Your task to perform on an android device: find which apps use the phone's location Image 0: 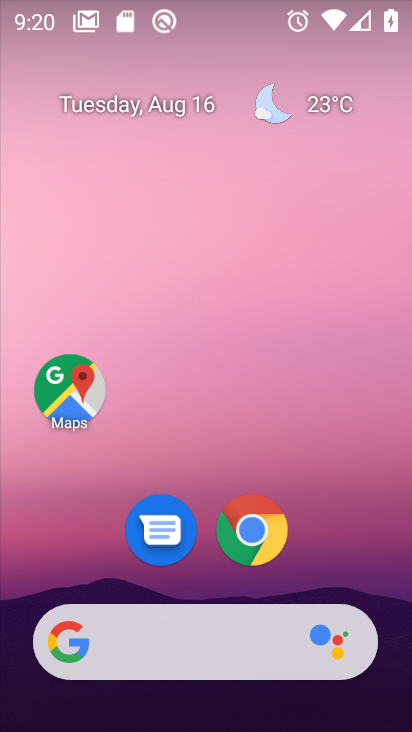
Step 0: drag from (318, 489) to (319, 58)
Your task to perform on an android device: find which apps use the phone's location Image 1: 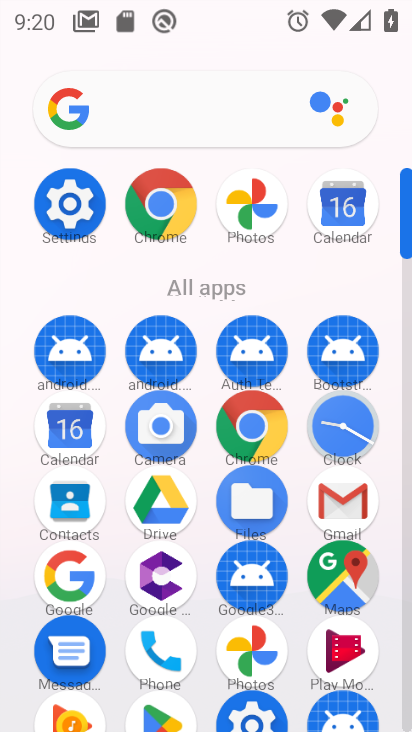
Step 1: click (244, 719)
Your task to perform on an android device: find which apps use the phone's location Image 2: 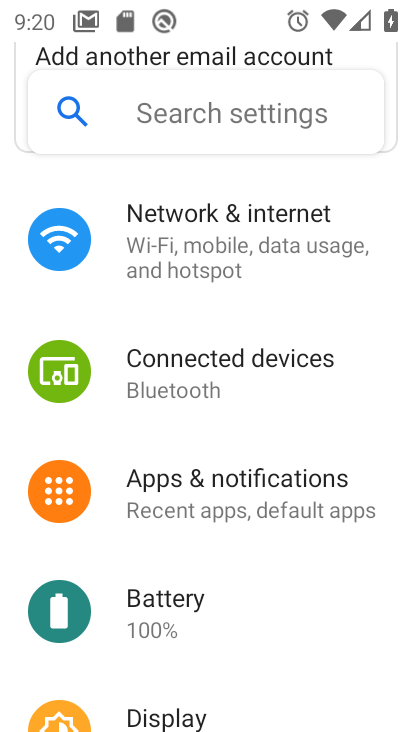
Step 2: drag from (247, 657) to (297, 180)
Your task to perform on an android device: find which apps use the phone's location Image 3: 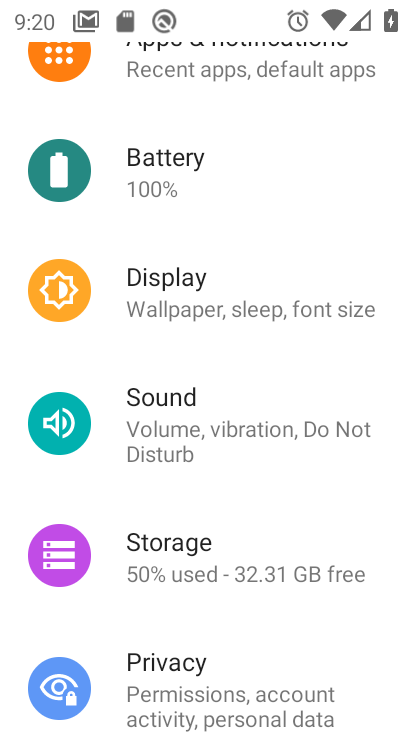
Step 3: drag from (303, 523) to (331, 73)
Your task to perform on an android device: find which apps use the phone's location Image 4: 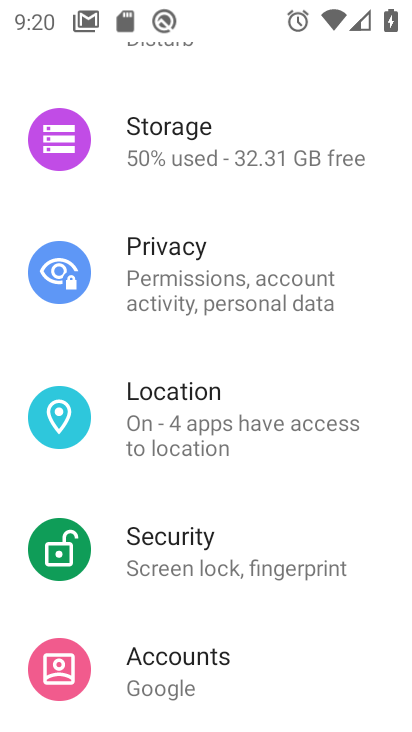
Step 4: click (182, 416)
Your task to perform on an android device: find which apps use the phone's location Image 5: 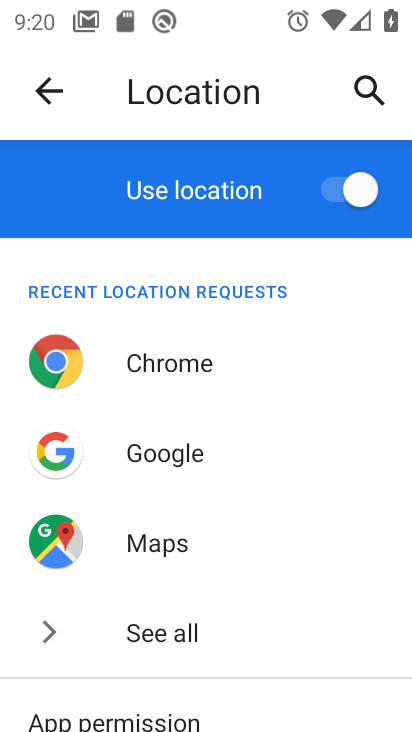
Step 5: drag from (307, 635) to (331, 295)
Your task to perform on an android device: find which apps use the phone's location Image 6: 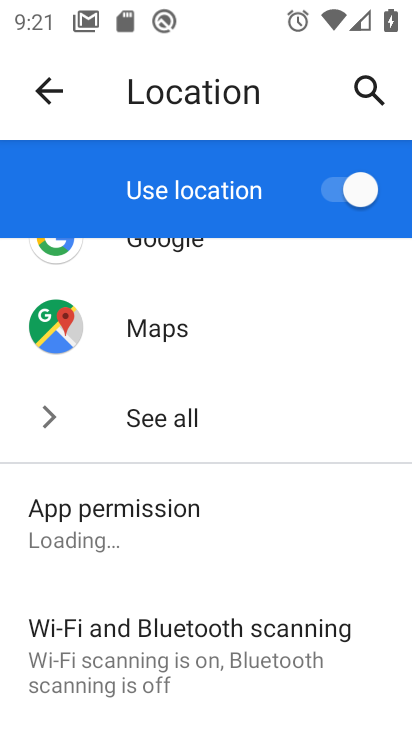
Step 6: click (149, 521)
Your task to perform on an android device: find which apps use the phone's location Image 7: 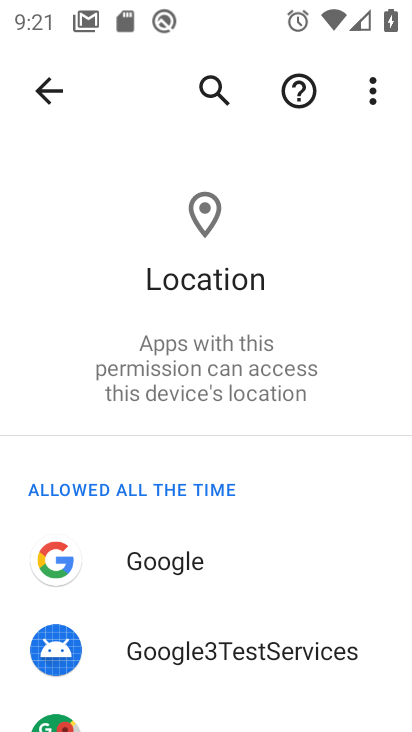
Step 7: task complete